Your task to perform on an android device: change the clock display to digital Image 0: 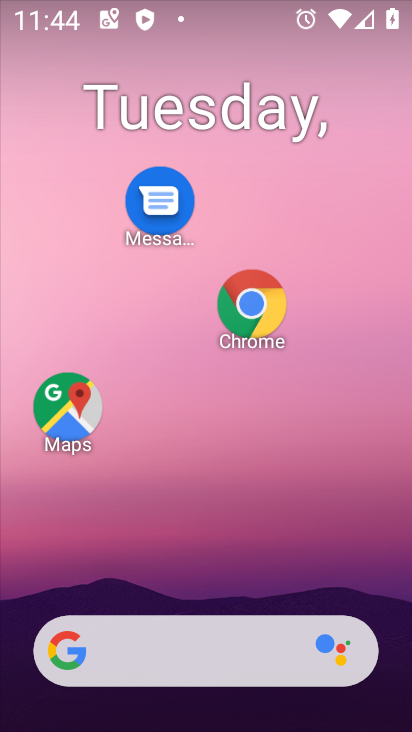
Step 0: drag from (208, 552) to (265, 223)
Your task to perform on an android device: change the clock display to digital Image 1: 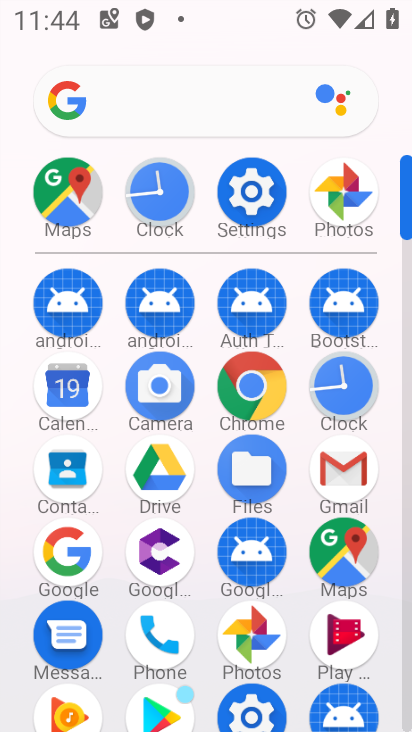
Step 1: click (349, 381)
Your task to perform on an android device: change the clock display to digital Image 2: 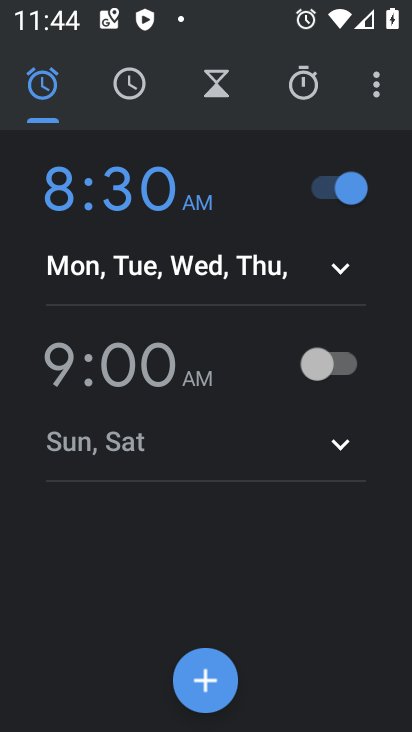
Step 2: click (375, 91)
Your task to perform on an android device: change the clock display to digital Image 3: 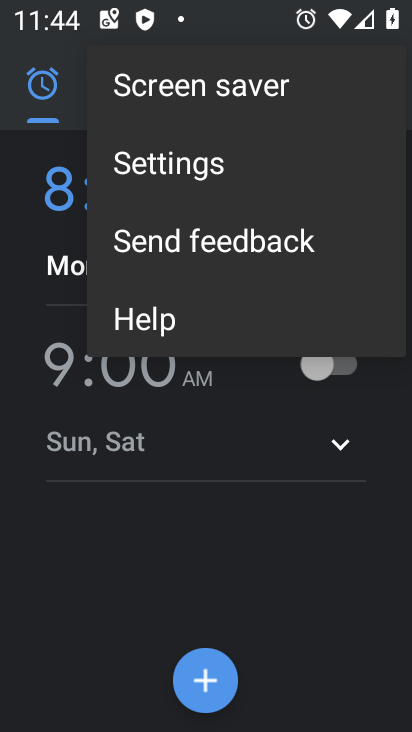
Step 3: click (272, 166)
Your task to perform on an android device: change the clock display to digital Image 4: 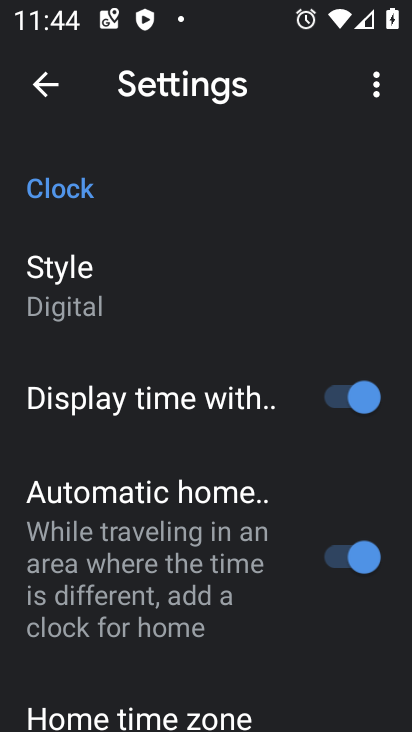
Step 4: click (79, 281)
Your task to perform on an android device: change the clock display to digital Image 5: 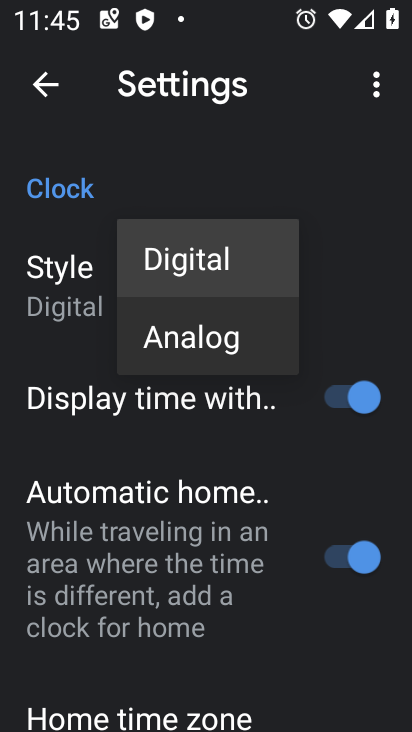
Step 5: click (201, 276)
Your task to perform on an android device: change the clock display to digital Image 6: 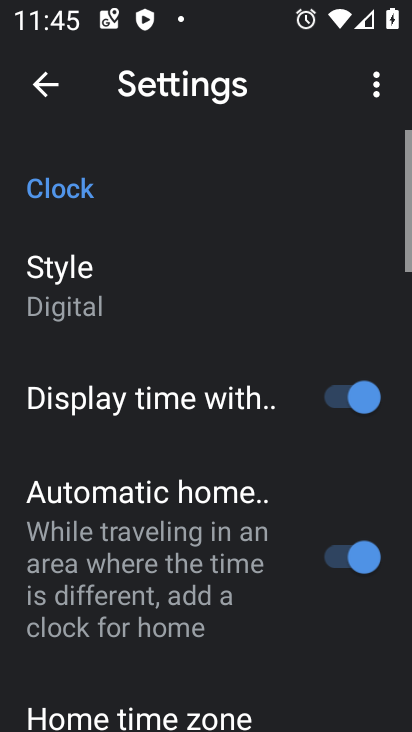
Step 6: task complete